Your task to perform on an android device: Go to Wikipedia Image 0: 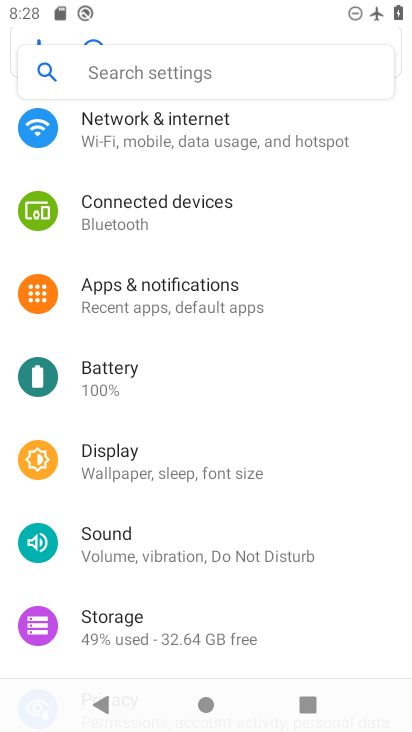
Step 0: press home button
Your task to perform on an android device: Go to Wikipedia Image 1: 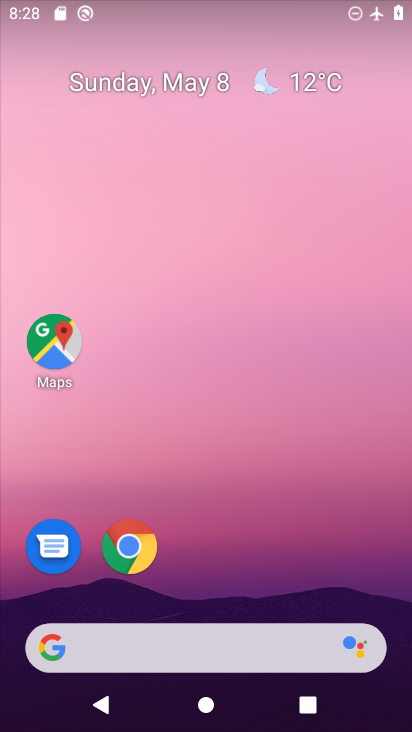
Step 1: click (129, 526)
Your task to perform on an android device: Go to Wikipedia Image 2: 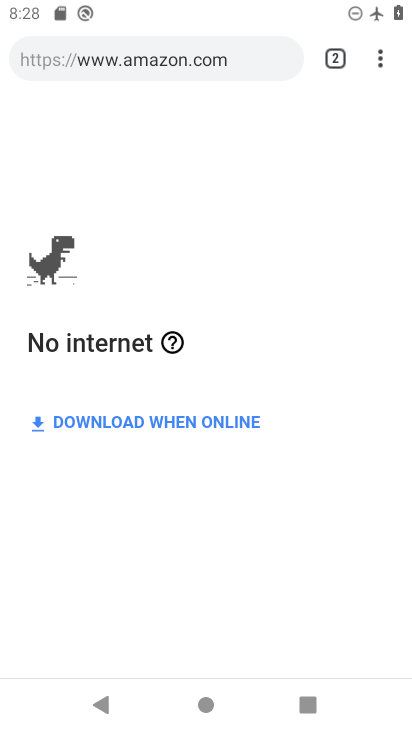
Step 2: task complete